Your task to perform on an android device: Open network settings Image 0: 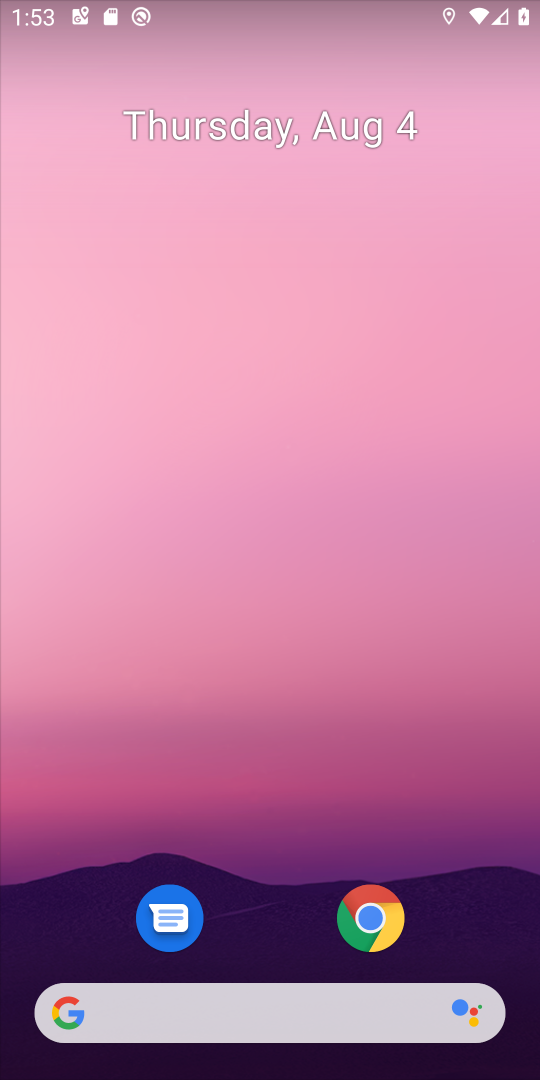
Step 0: drag from (284, 911) to (258, 400)
Your task to perform on an android device: Open network settings Image 1: 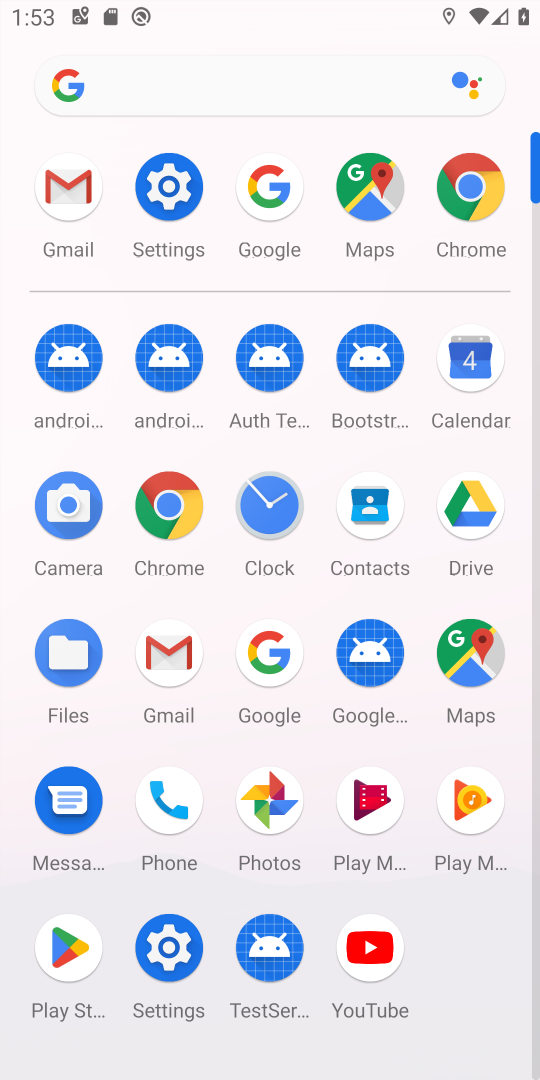
Step 1: click (167, 226)
Your task to perform on an android device: Open network settings Image 2: 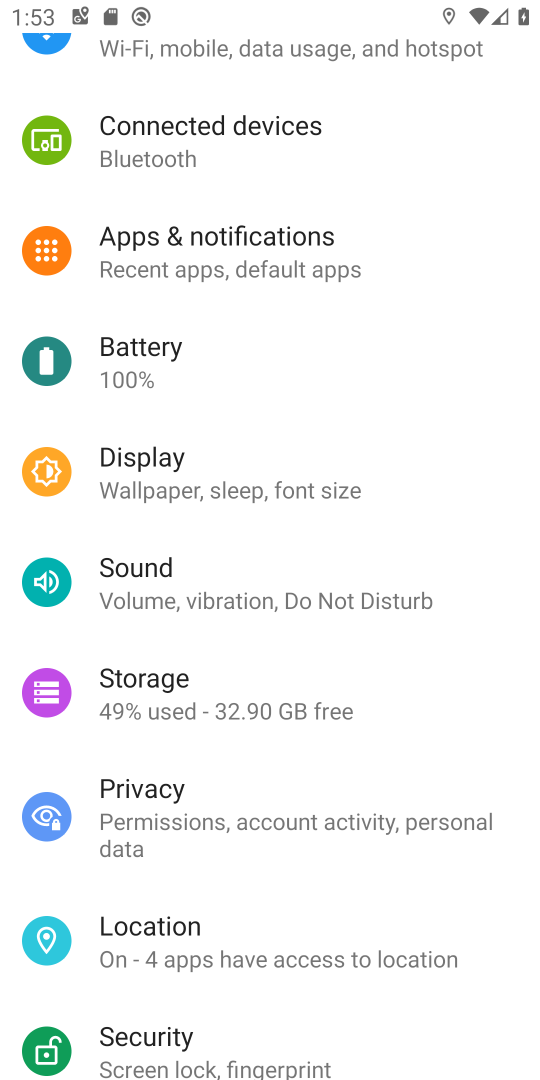
Step 2: drag from (238, 307) to (274, 714)
Your task to perform on an android device: Open network settings Image 3: 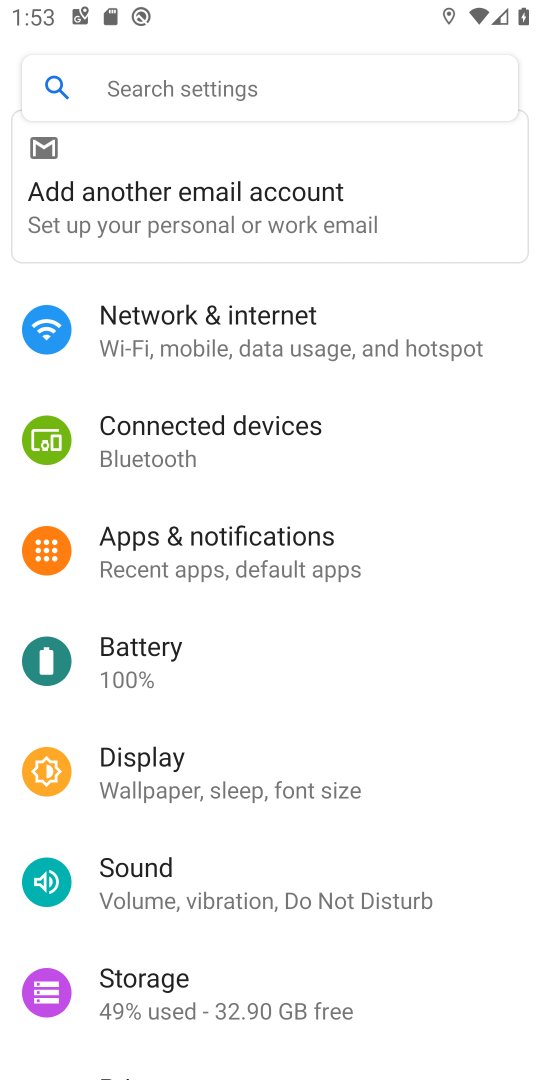
Step 3: click (225, 331)
Your task to perform on an android device: Open network settings Image 4: 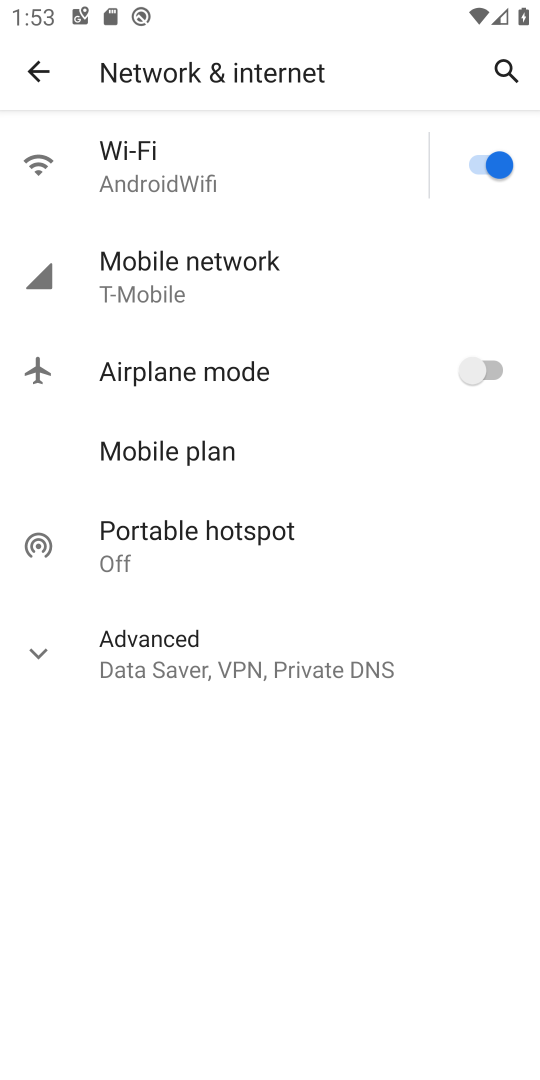
Step 4: task complete